Your task to perform on an android device: change the clock display to analog Image 0: 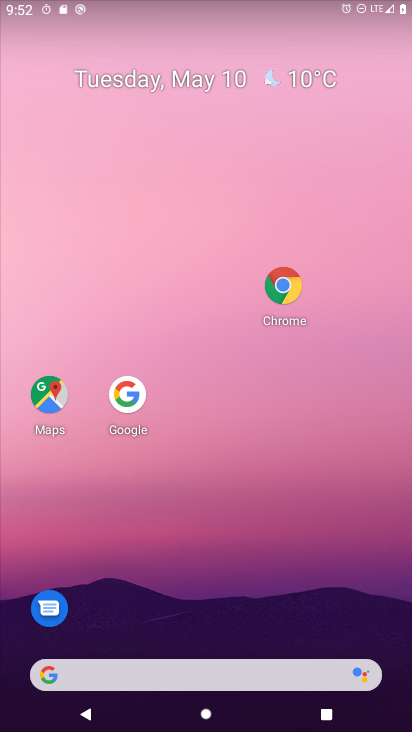
Step 0: drag from (212, 679) to (344, 126)
Your task to perform on an android device: change the clock display to analog Image 1: 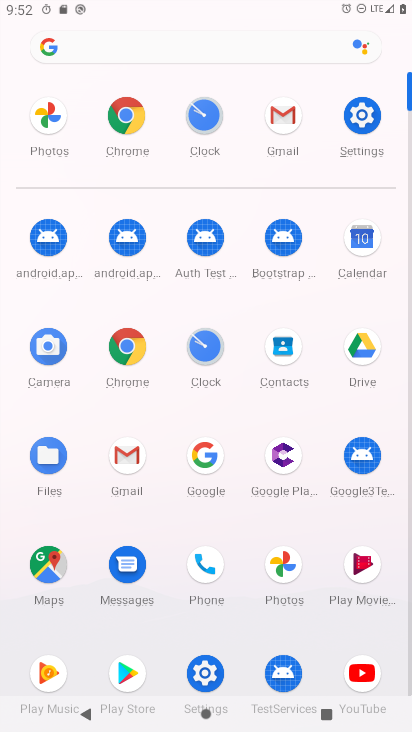
Step 1: click (365, 126)
Your task to perform on an android device: change the clock display to analog Image 2: 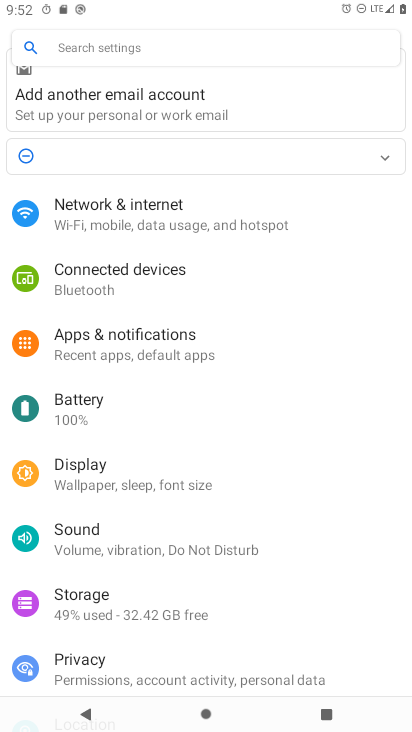
Step 2: press home button
Your task to perform on an android device: change the clock display to analog Image 3: 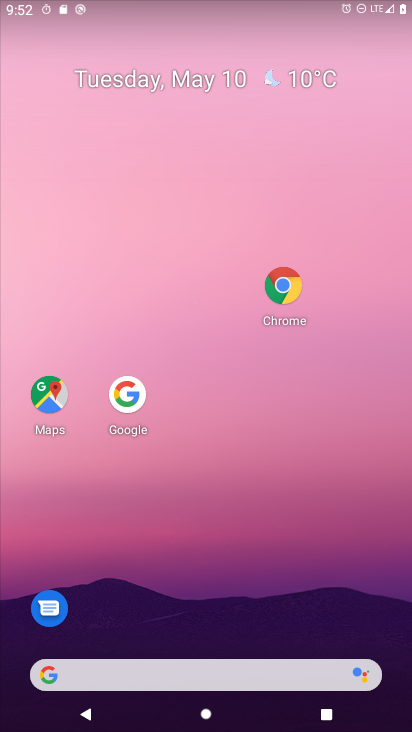
Step 3: drag from (168, 679) to (287, 184)
Your task to perform on an android device: change the clock display to analog Image 4: 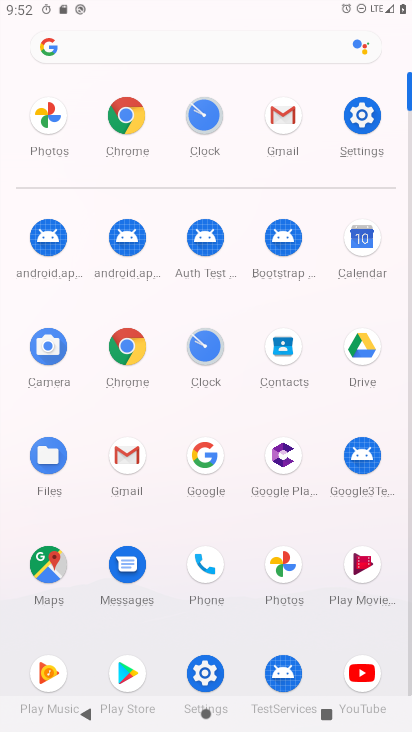
Step 4: click (202, 352)
Your task to perform on an android device: change the clock display to analog Image 5: 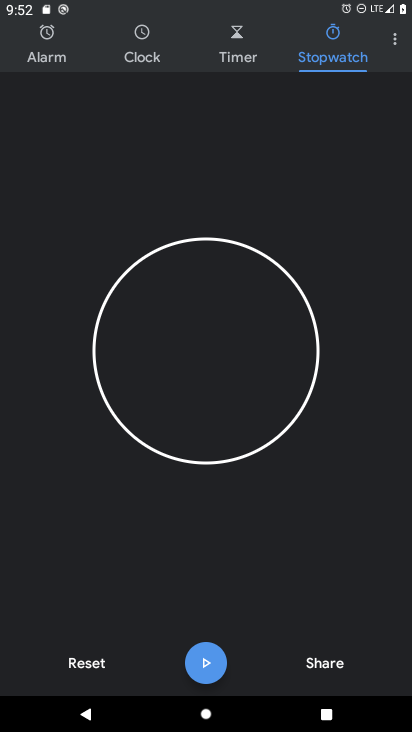
Step 5: click (393, 47)
Your task to perform on an android device: change the clock display to analog Image 6: 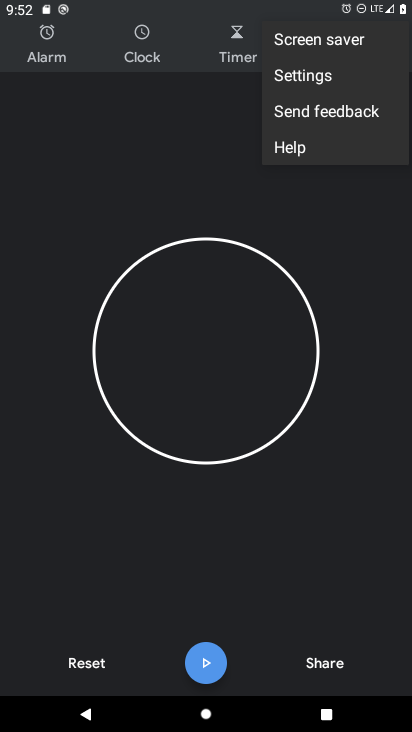
Step 6: click (295, 80)
Your task to perform on an android device: change the clock display to analog Image 7: 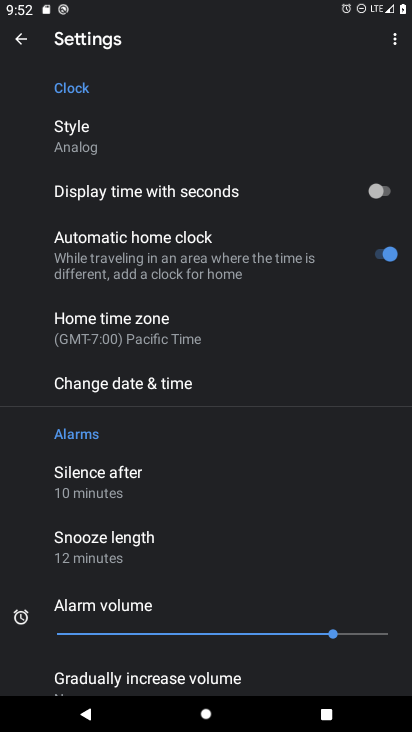
Step 7: task complete